Your task to perform on an android device: delete a single message in the gmail app Image 0: 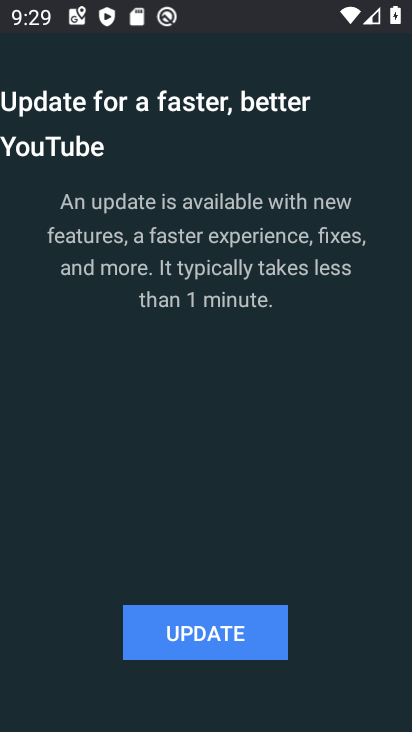
Step 0: press back button
Your task to perform on an android device: delete a single message in the gmail app Image 1: 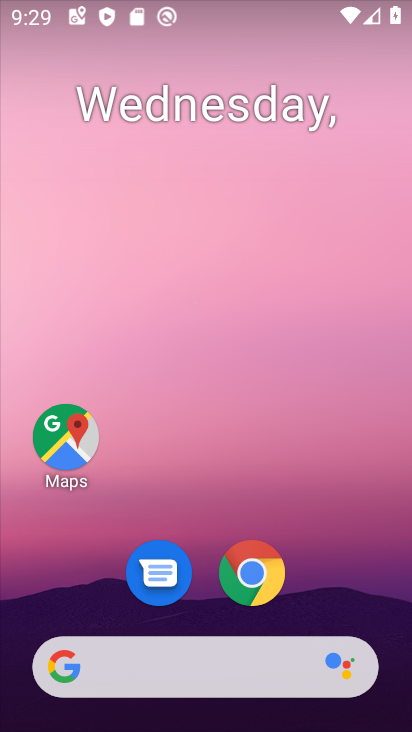
Step 1: drag from (378, 297) to (374, 256)
Your task to perform on an android device: delete a single message in the gmail app Image 2: 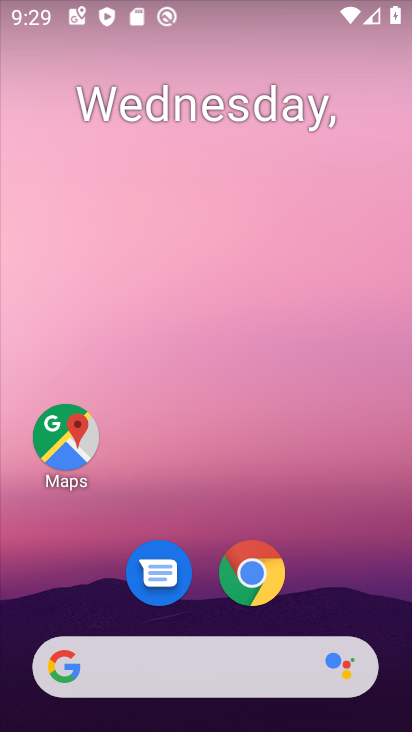
Step 2: drag from (379, 176) to (380, 113)
Your task to perform on an android device: delete a single message in the gmail app Image 3: 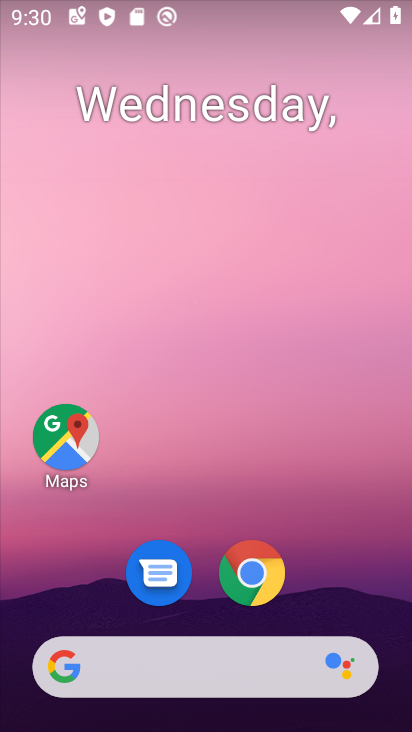
Step 3: drag from (364, 435) to (364, 145)
Your task to perform on an android device: delete a single message in the gmail app Image 4: 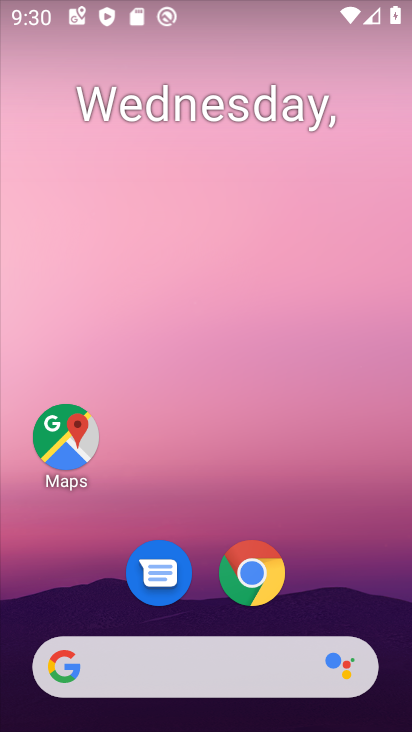
Step 4: drag from (360, 252) to (350, 105)
Your task to perform on an android device: delete a single message in the gmail app Image 5: 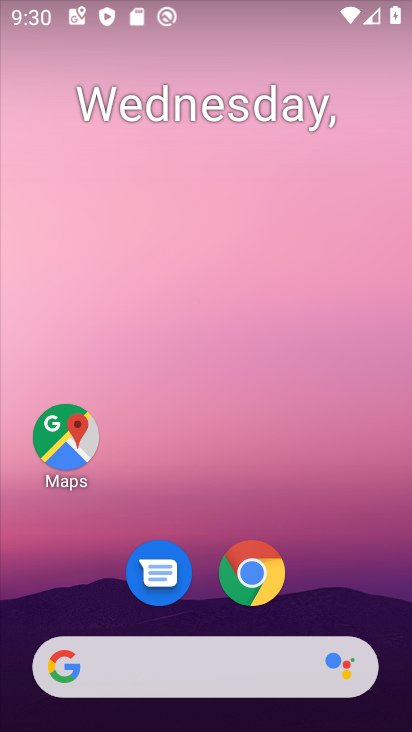
Step 5: drag from (377, 615) to (372, 74)
Your task to perform on an android device: delete a single message in the gmail app Image 6: 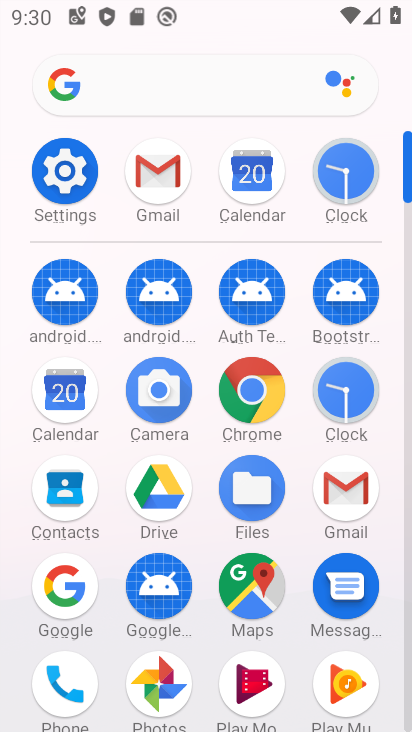
Step 6: click (330, 479)
Your task to perform on an android device: delete a single message in the gmail app Image 7: 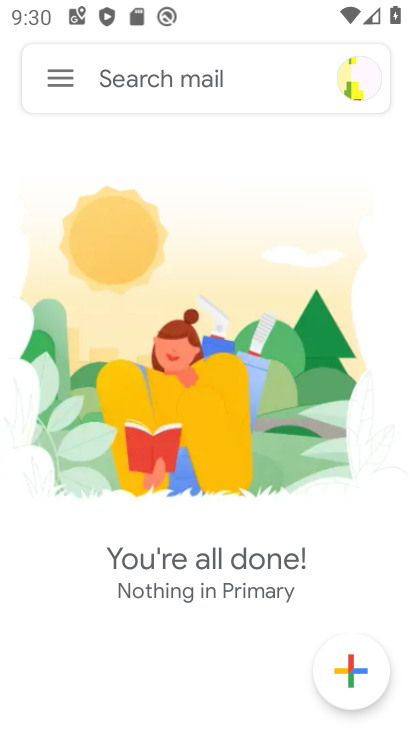
Step 7: click (54, 76)
Your task to perform on an android device: delete a single message in the gmail app Image 8: 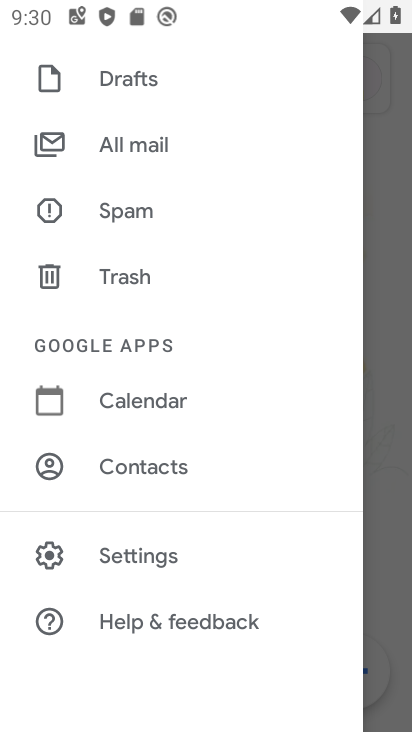
Step 8: drag from (290, 651) to (253, 175)
Your task to perform on an android device: delete a single message in the gmail app Image 9: 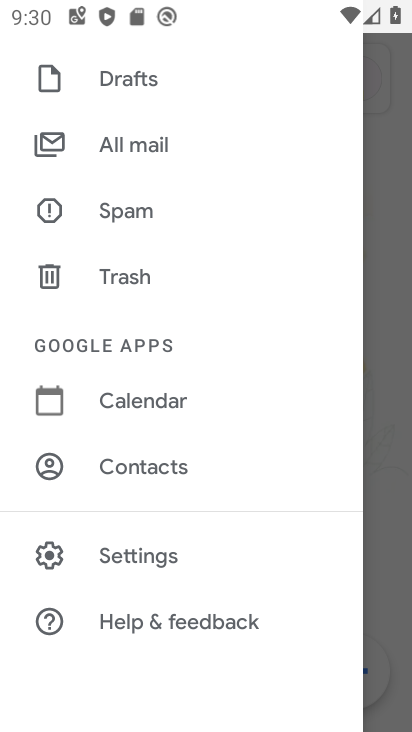
Step 9: drag from (275, 70) to (280, 506)
Your task to perform on an android device: delete a single message in the gmail app Image 10: 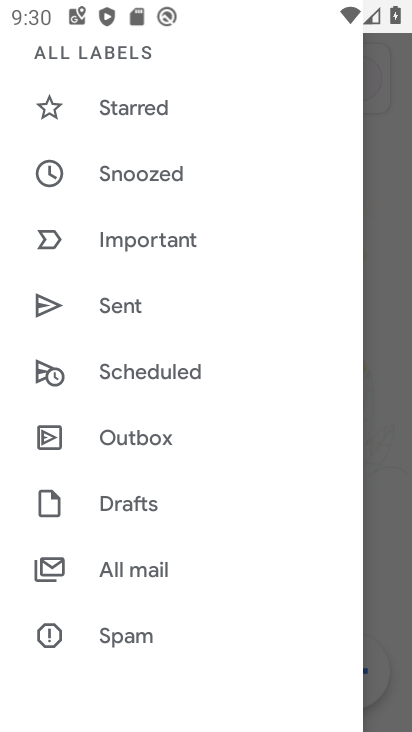
Step 10: drag from (269, 435) to (279, 566)
Your task to perform on an android device: delete a single message in the gmail app Image 11: 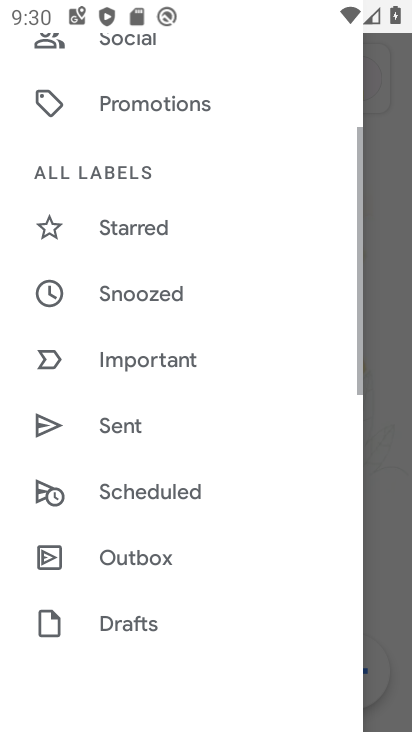
Step 11: drag from (266, 469) to (266, 540)
Your task to perform on an android device: delete a single message in the gmail app Image 12: 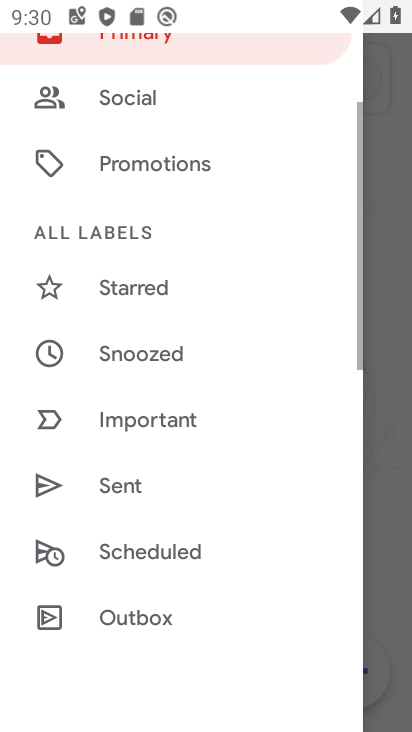
Step 12: drag from (271, 162) to (289, 592)
Your task to perform on an android device: delete a single message in the gmail app Image 13: 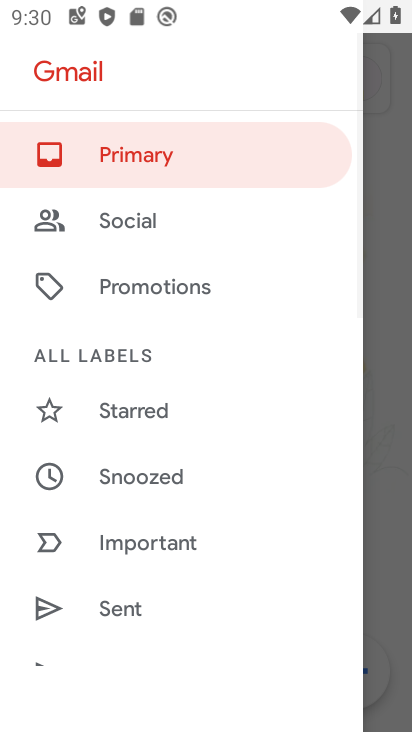
Step 13: click (194, 153)
Your task to perform on an android device: delete a single message in the gmail app Image 14: 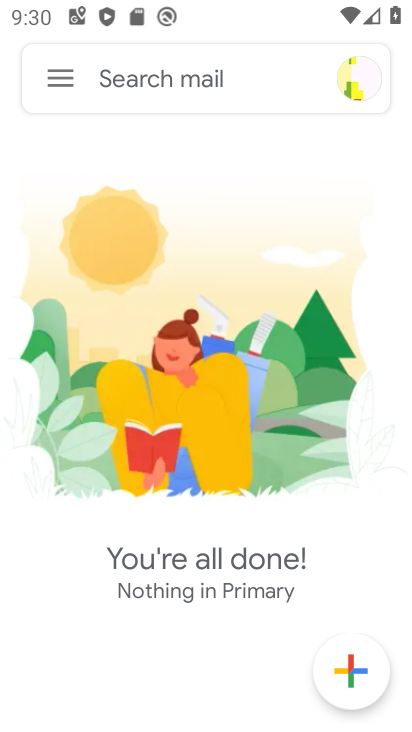
Step 14: task complete